Your task to perform on an android device: toggle notification dots Image 0: 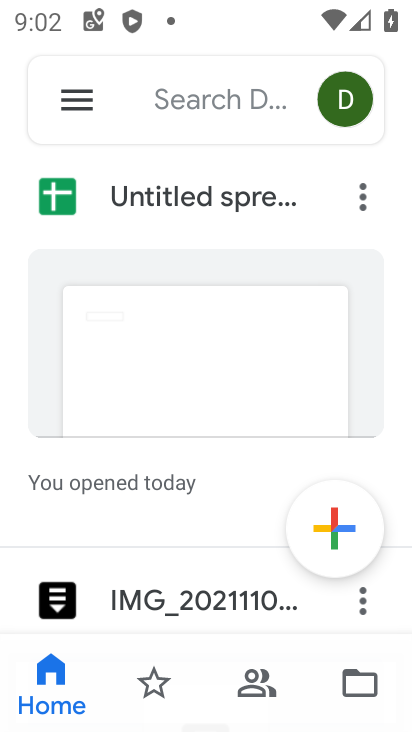
Step 0: press home button
Your task to perform on an android device: toggle notification dots Image 1: 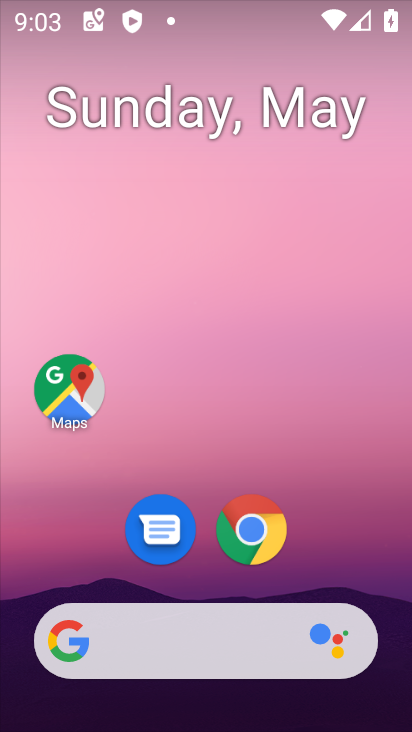
Step 1: drag from (337, 564) to (266, 3)
Your task to perform on an android device: toggle notification dots Image 2: 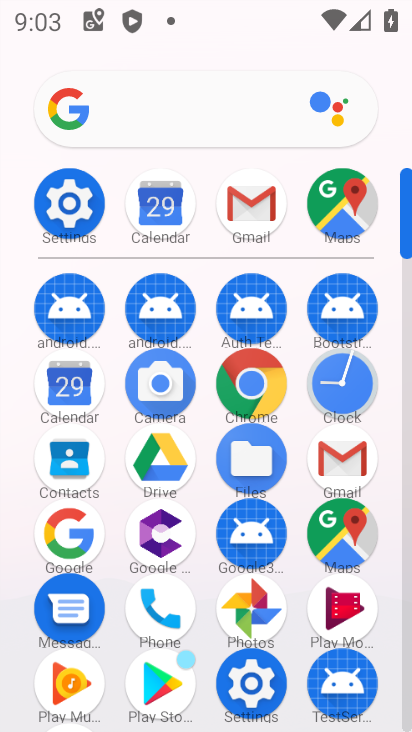
Step 2: click (81, 185)
Your task to perform on an android device: toggle notification dots Image 3: 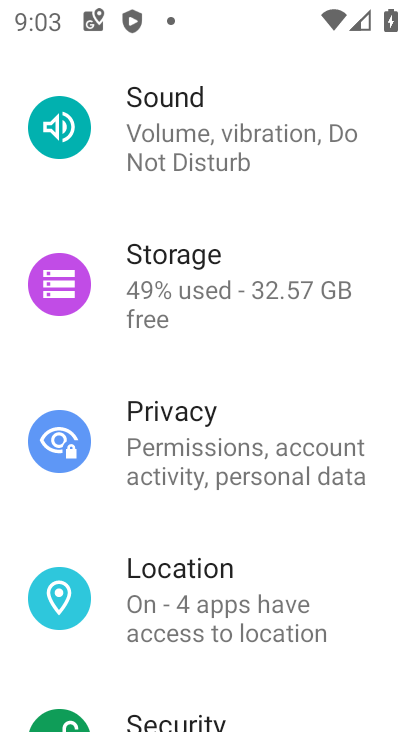
Step 3: drag from (267, 351) to (373, 626)
Your task to perform on an android device: toggle notification dots Image 4: 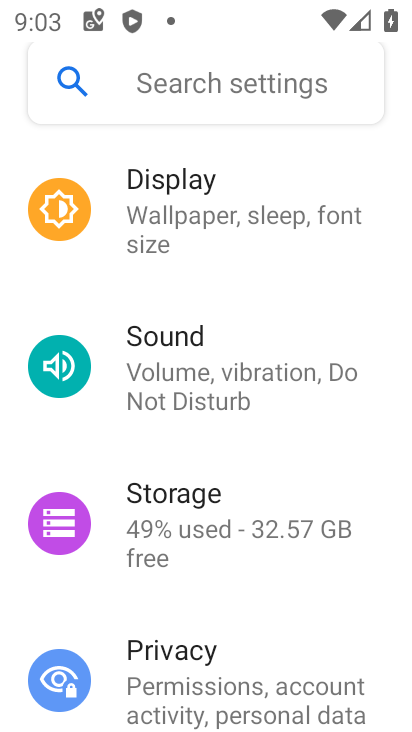
Step 4: drag from (272, 333) to (410, 677)
Your task to perform on an android device: toggle notification dots Image 5: 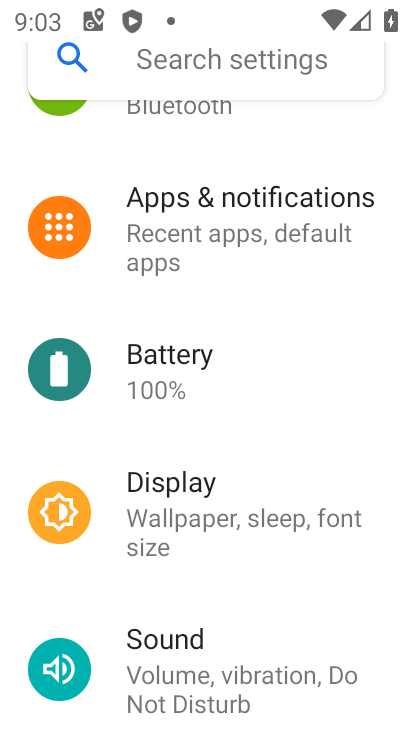
Step 5: click (263, 267)
Your task to perform on an android device: toggle notification dots Image 6: 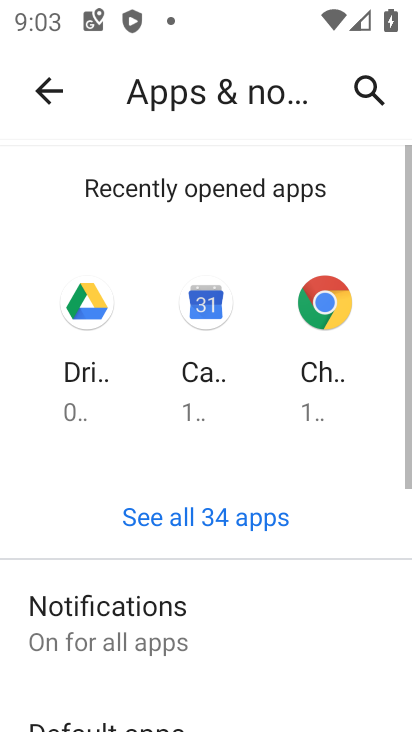
Step 6: task complete